Your task to perform on an android device: Open wifi settings Image 0: 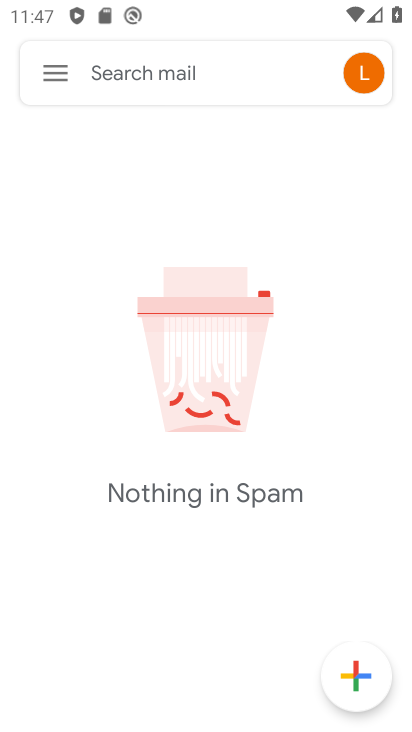
Step 0: press home button
Your task to perform on an android device: Open wifi settings Image 1: 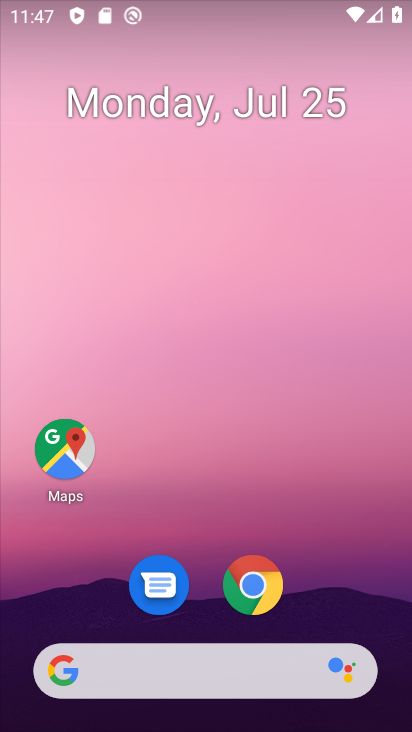
Step 1: drag from (314, 582) to (299, 45)
Your task to perform on an android device: Open wifi settings Image 2: 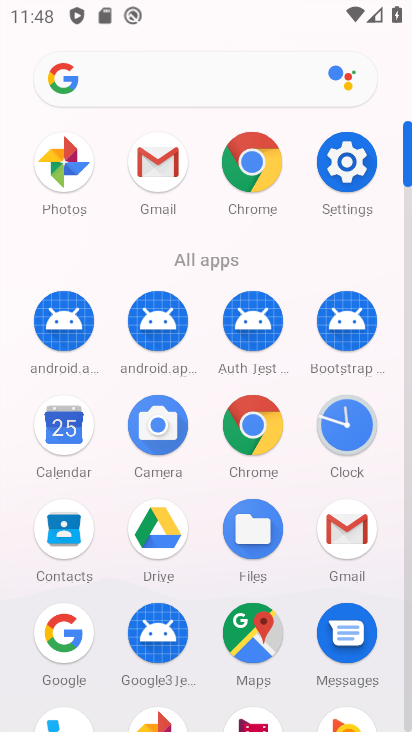
Step 2: click (336, 178)
Your task to perform on an android device: Open wifi settings Image 3: 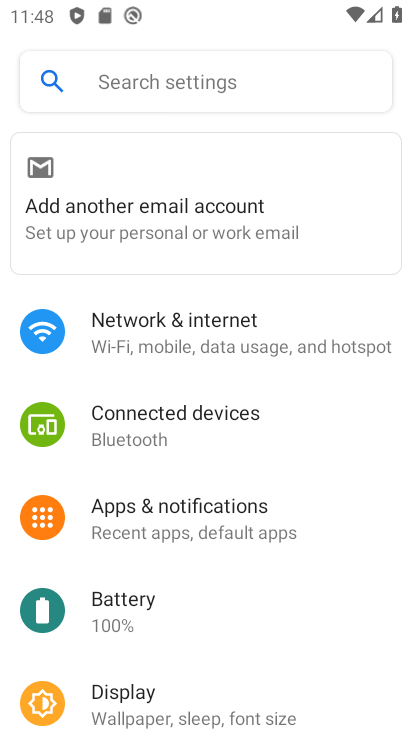
Step 3: click (226, 326)
Your task to perform on an android device: Open wifi settings Image 4: 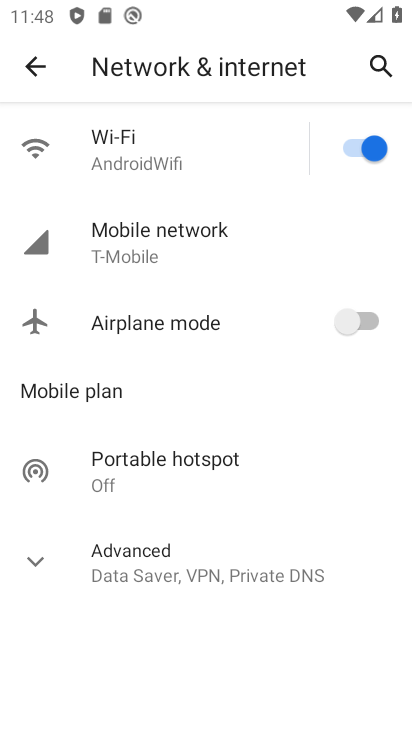
Step 4: click (132, 156)
Your task to perform on an android device: Open wifi settings Image 5: 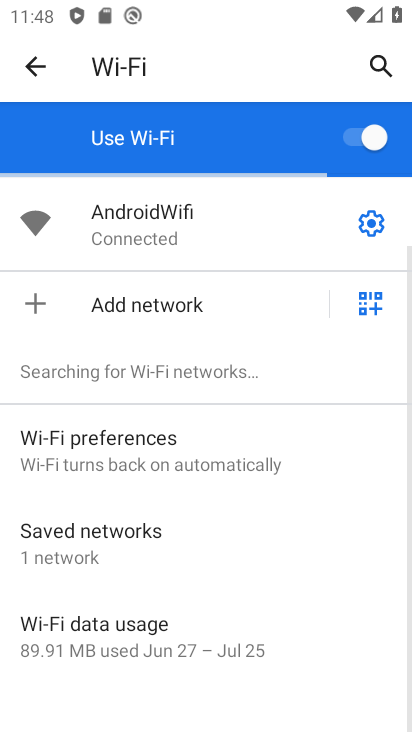
Step 5: task complete